Your task to perform on an android device: Search for "logitech g910" on newegg, select the first entry, add it to the cart, then select checkout. Image 0: 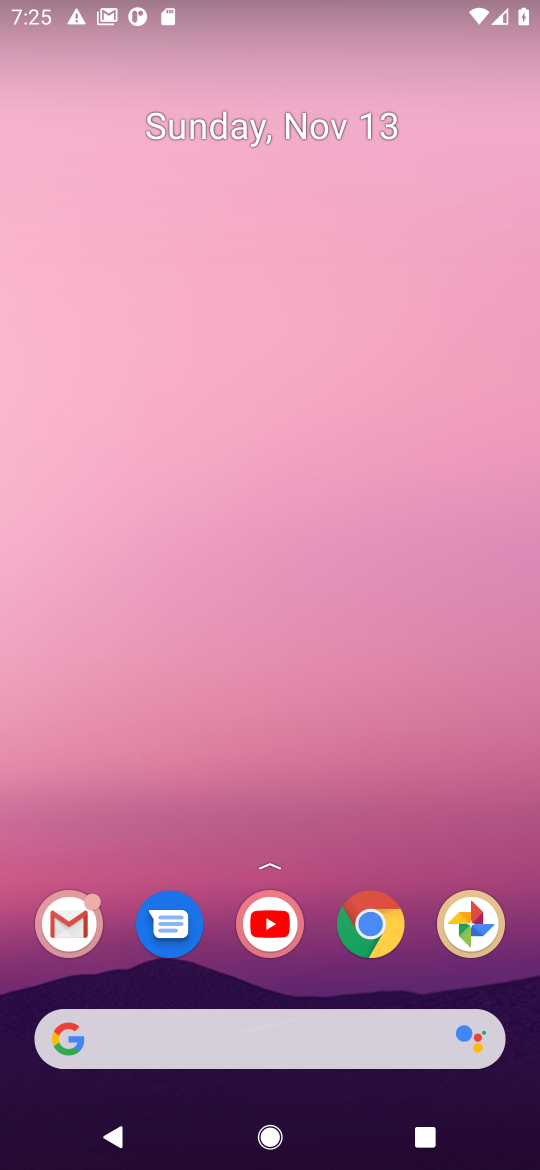
Step 0: click (359, 933)
Your task to perform on an android device: Search for "logitech g910" on newegg, select the first entry, add it to the cart, then select checkout. Image 1: 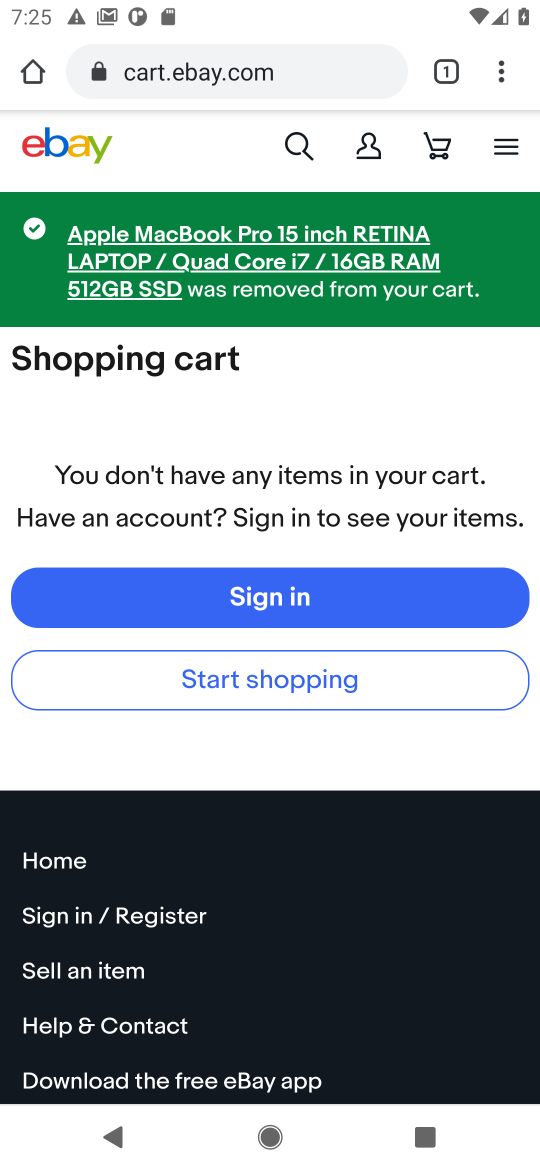
Step 1: click (233, 81)
Your task to perform on an android device: Search for "logitech g910" on newegg, select the first entry, add it to the cart, then select checkout. Image 2: 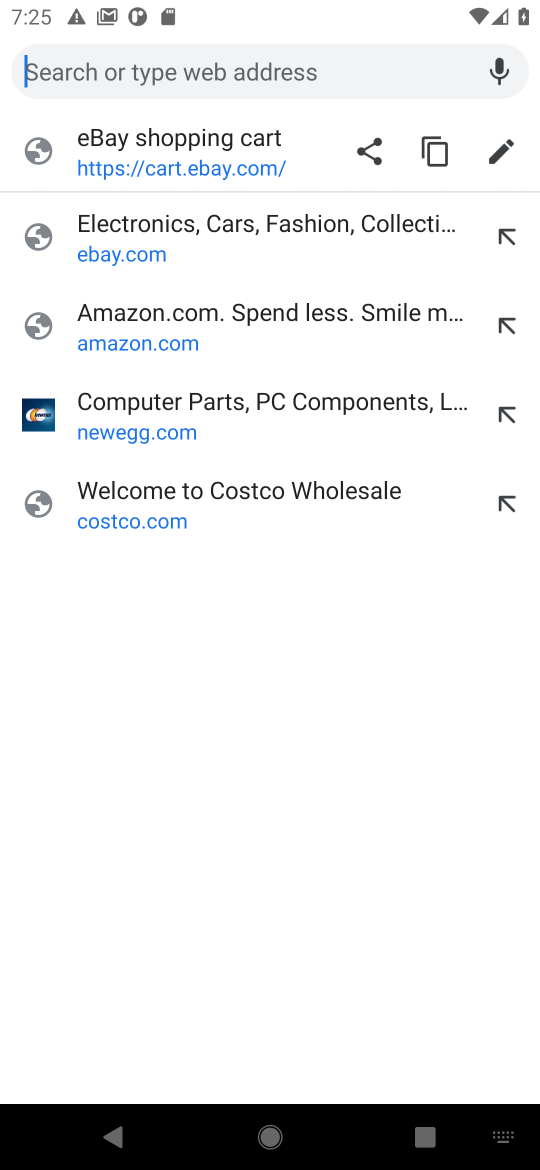
Step 2: click (93, 434)
Your task to perform on an android device: Search for "logitech g910" on newegg, select the first entry, add it to the cart, then select checkout. Image 3: 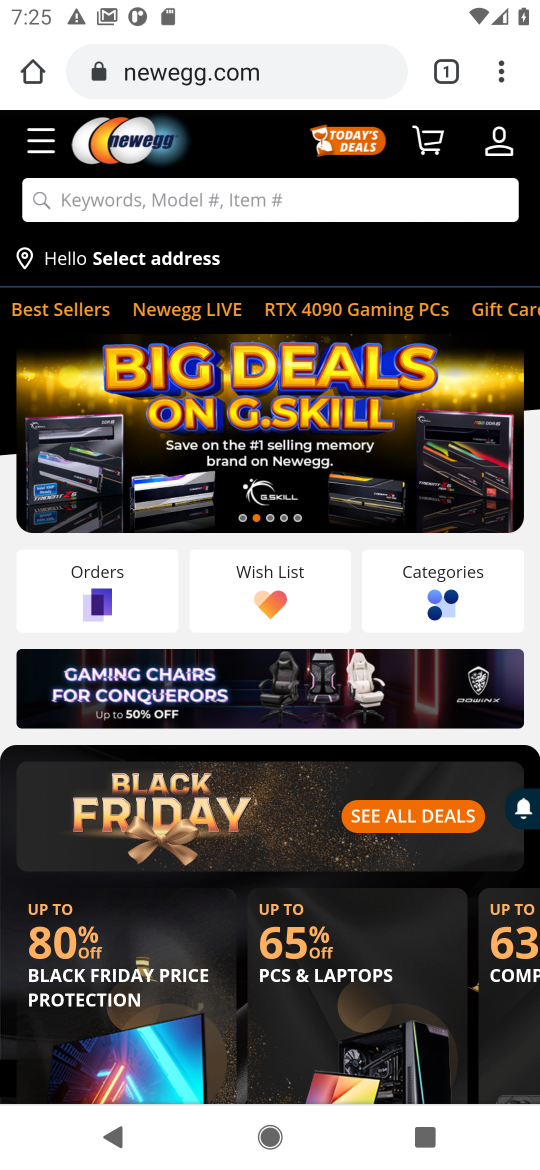
Step 3: click (209, 189)
Your task to perform on an android device: Search for "logitech g910" on newegg, select the first entry, add it to the cart, then select checkout. Image 4: 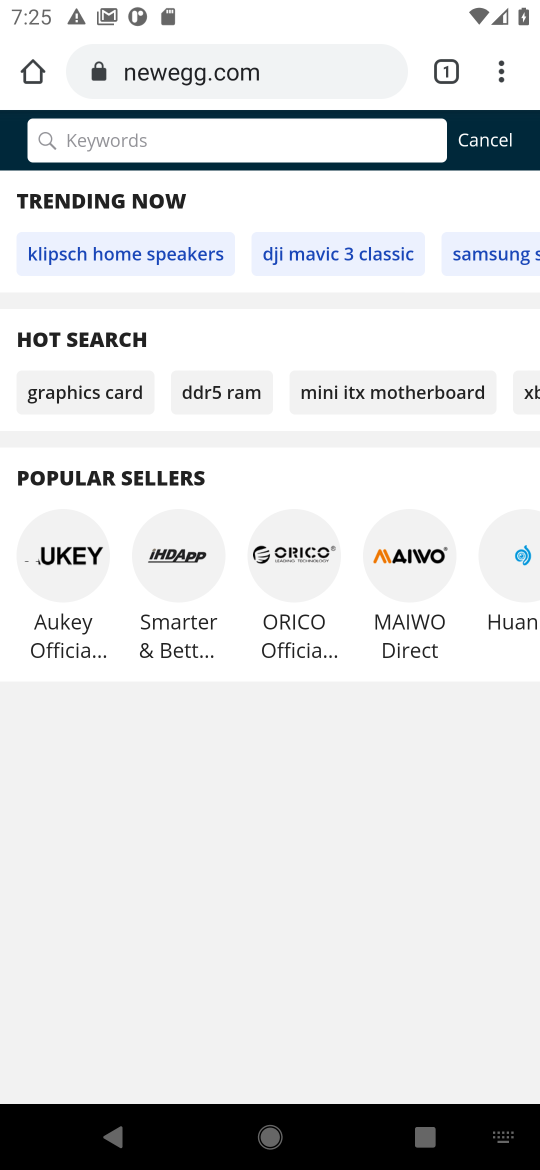
Step 4: type "logitech g910"
Your task to perform on an android device: Search for "logitech g910" on newegg, select the first entry, add it to the cart, then select checkout. Image 5: 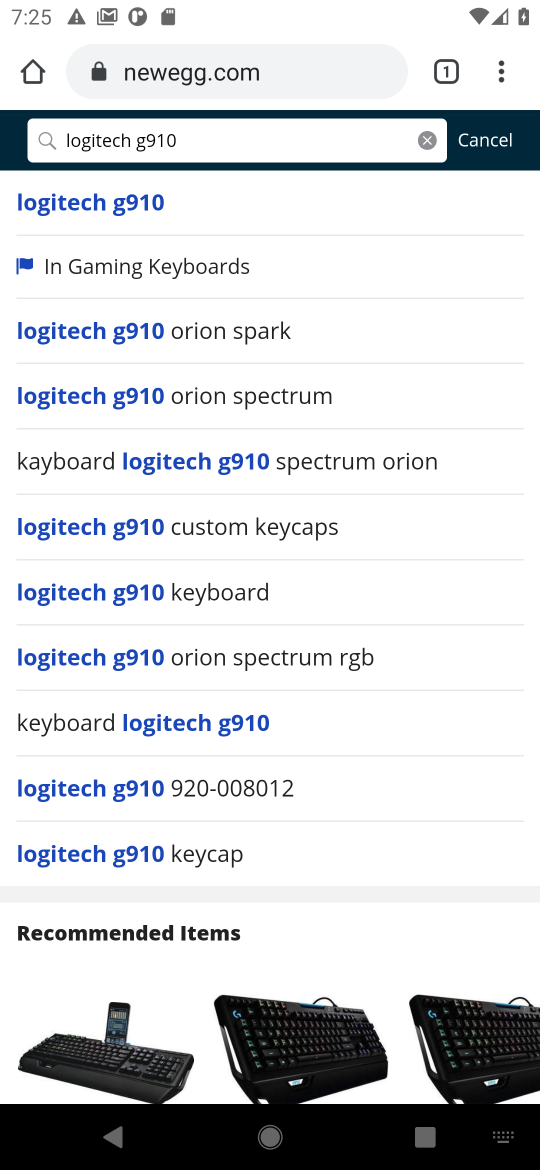
Step 5: click (93, 207)
Your task to perform on an android device: Search for "logitech g910" on newegg, select the first entry, add it to the cart, then select checkout. Image 6: 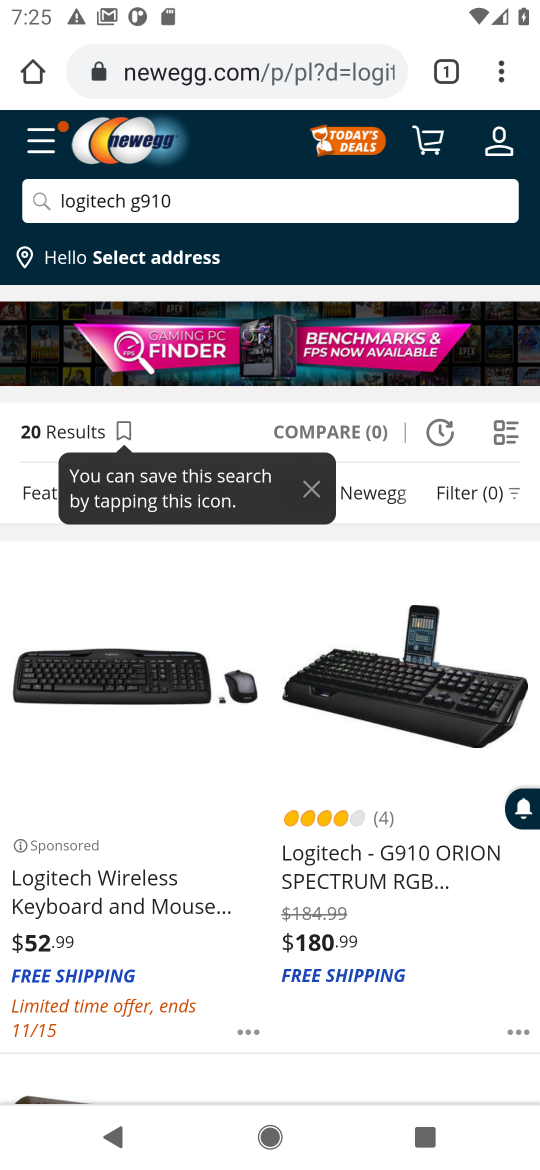
Step 6: click (100, 745)
Your task to perform on an android device: Search for "logitech g910" on newegg, select the first entry, add it to the cart, then select checkout. Image 7: 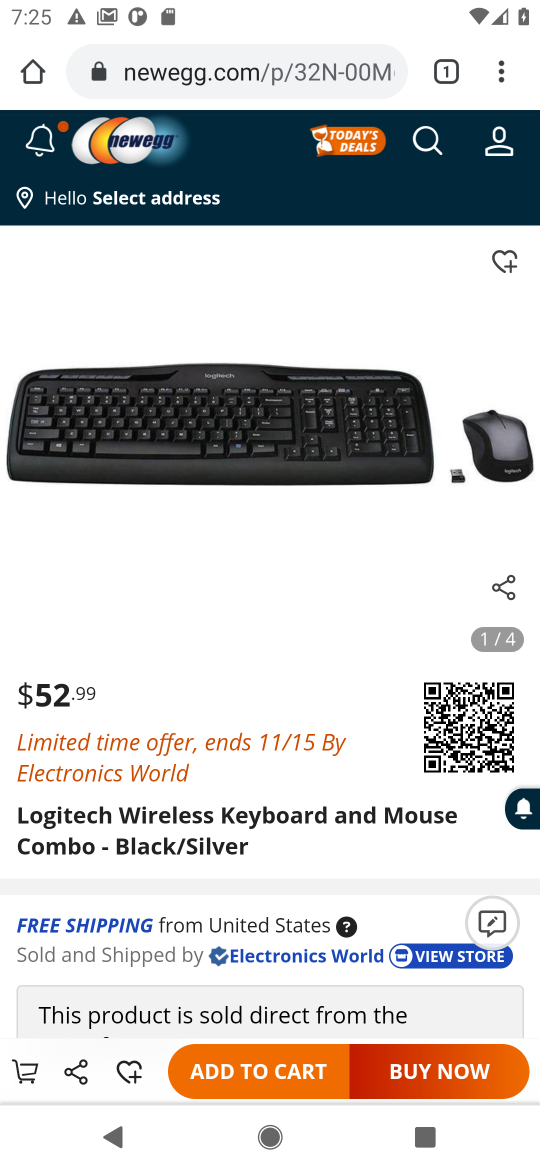
Step 7: task complete